Your task to perform on an android device: change text size in settings app Image 0: 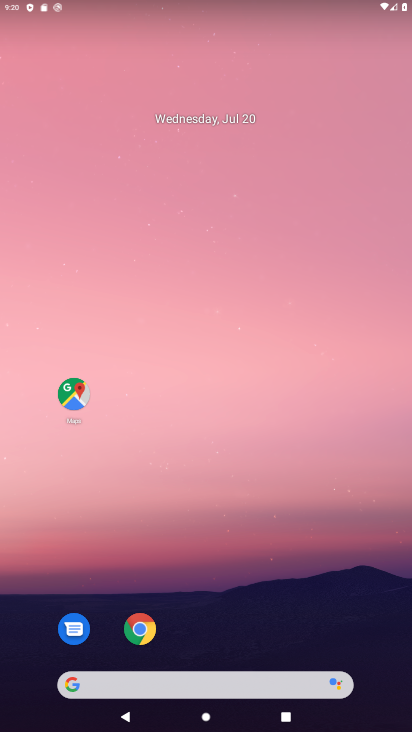
Step 0: drag from (242, 624) to (242, 30)
Your task to perform on an android device: change text size in settings app Image 1: 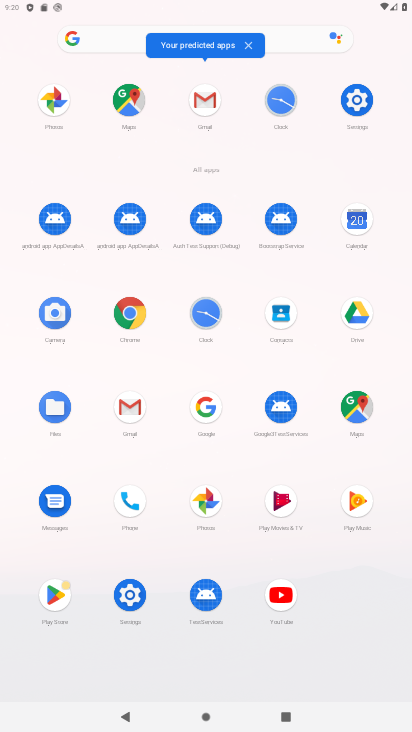
Step 1: click (361, 91)
Your task to perform on an android device: change text size in settings app Image 2: 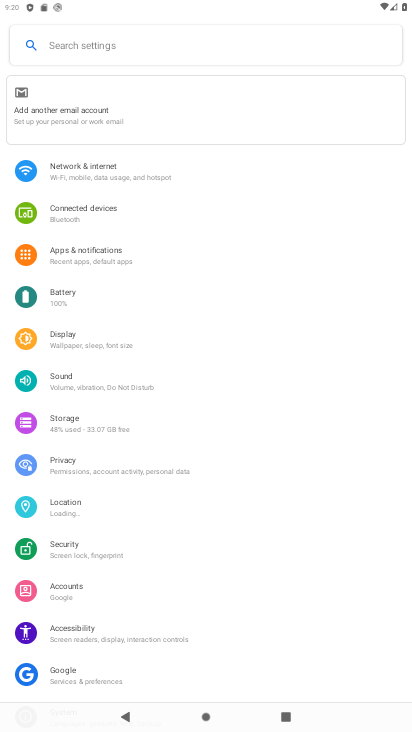
Step 2: click (118, 347)
Your task to perform on an android device: change text size in settings app Image 3: 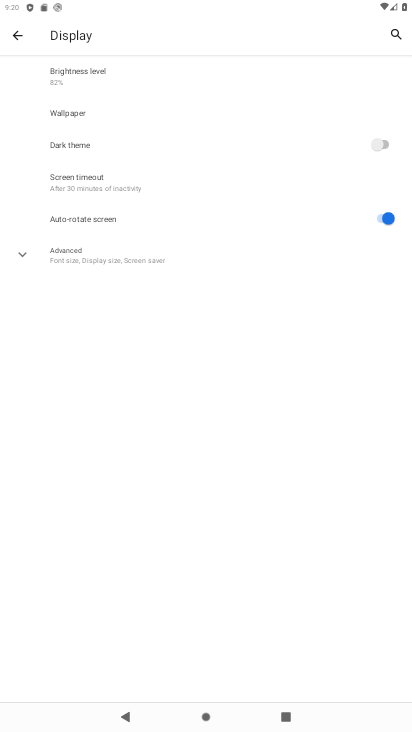
Step 3: click (185, 255)
Your task to perform on an android device: change text size in settings app Image 4: 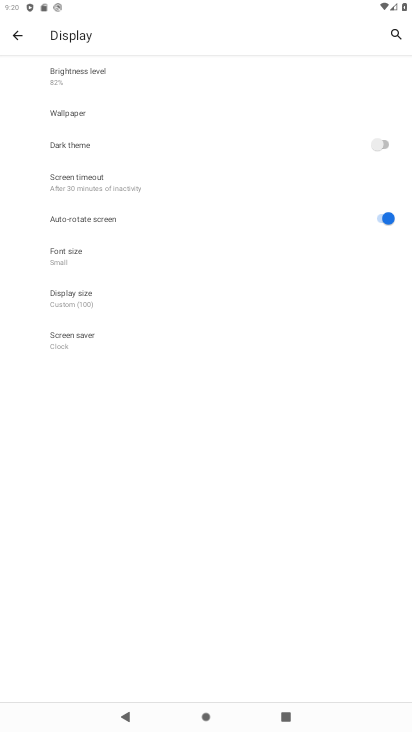
Step 4: click (84, 257)
Your task to perform on an android device: change text size in settings app Image 5: 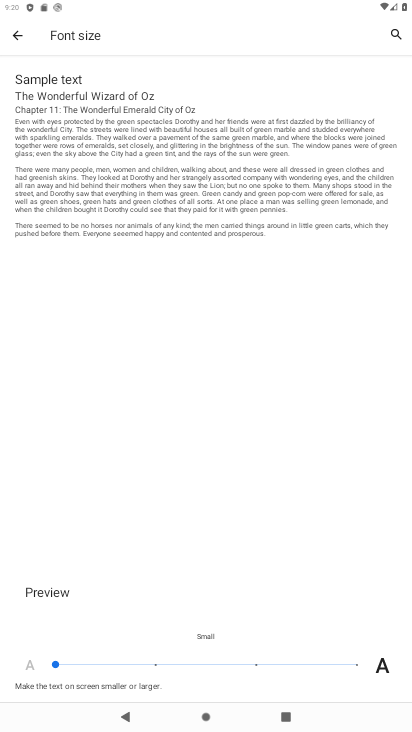
Step 5: click (258, 661)
Your task to perform on an android device: change text size in settings app Image 6: 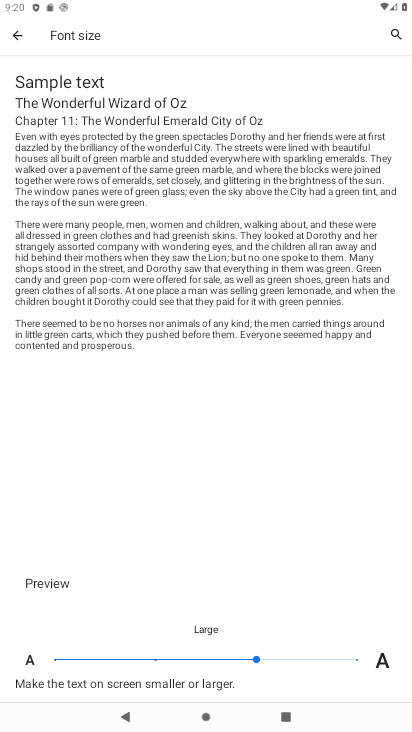
Step 6: task complete